Your task to perform on an android device: See recent photos Image 0: 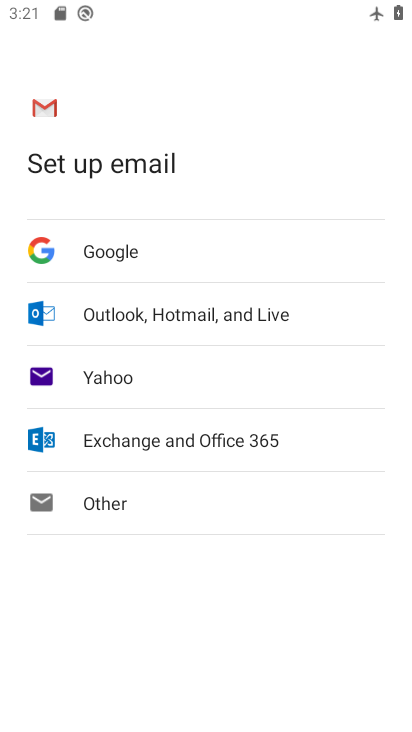
Step 0: press home button
Your task to perform on an android device: See recent photos Image 1: 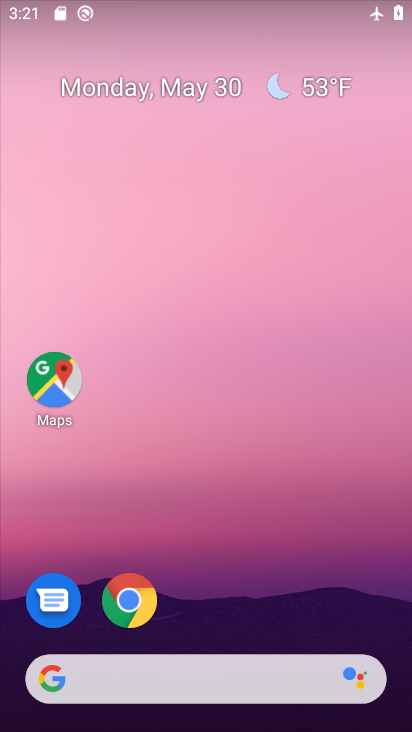
Step 1: drag from (248, 578) to (178, 98)
Your task to perform on an android device: See recent photos Image 2: 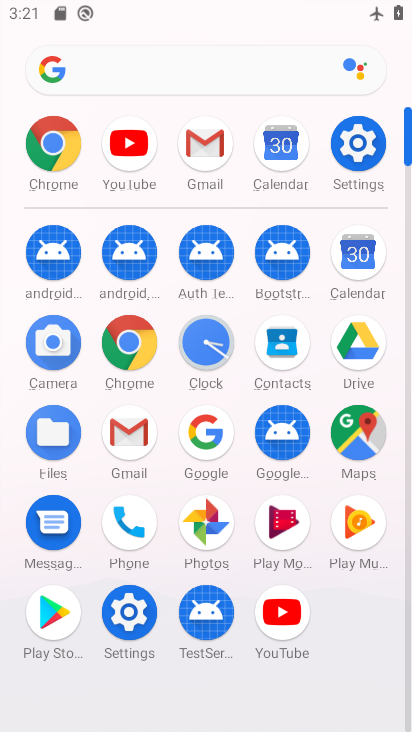
Step 2: click (186, 523)
Your task to perform on an android device: See recent photos Image 3: 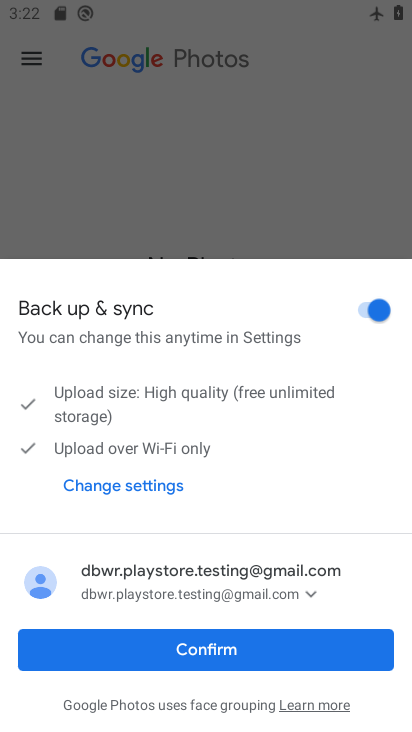
Step 3: click (207, 643)
Your task to perform on an android device: See recent photos Image 4: 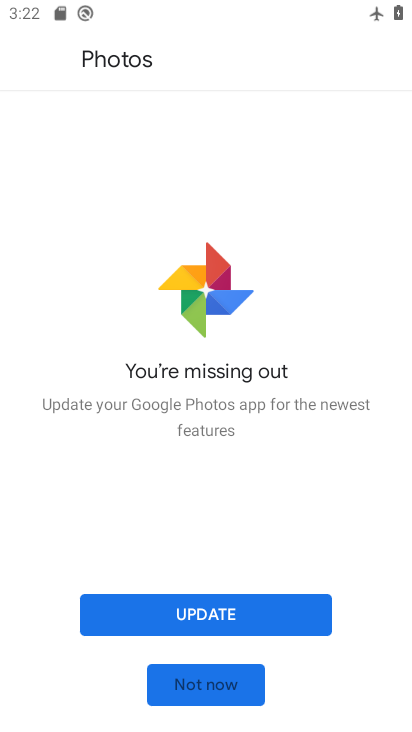
Step 4: click (204, 620)
Your task to perform on an android device: See recent photos Image 5: 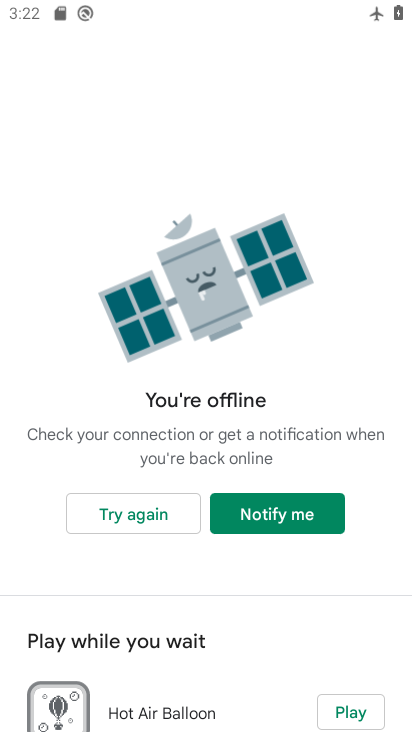
Step 5: task complete